Your task to perform on an android device: toggle wifi Image 0: 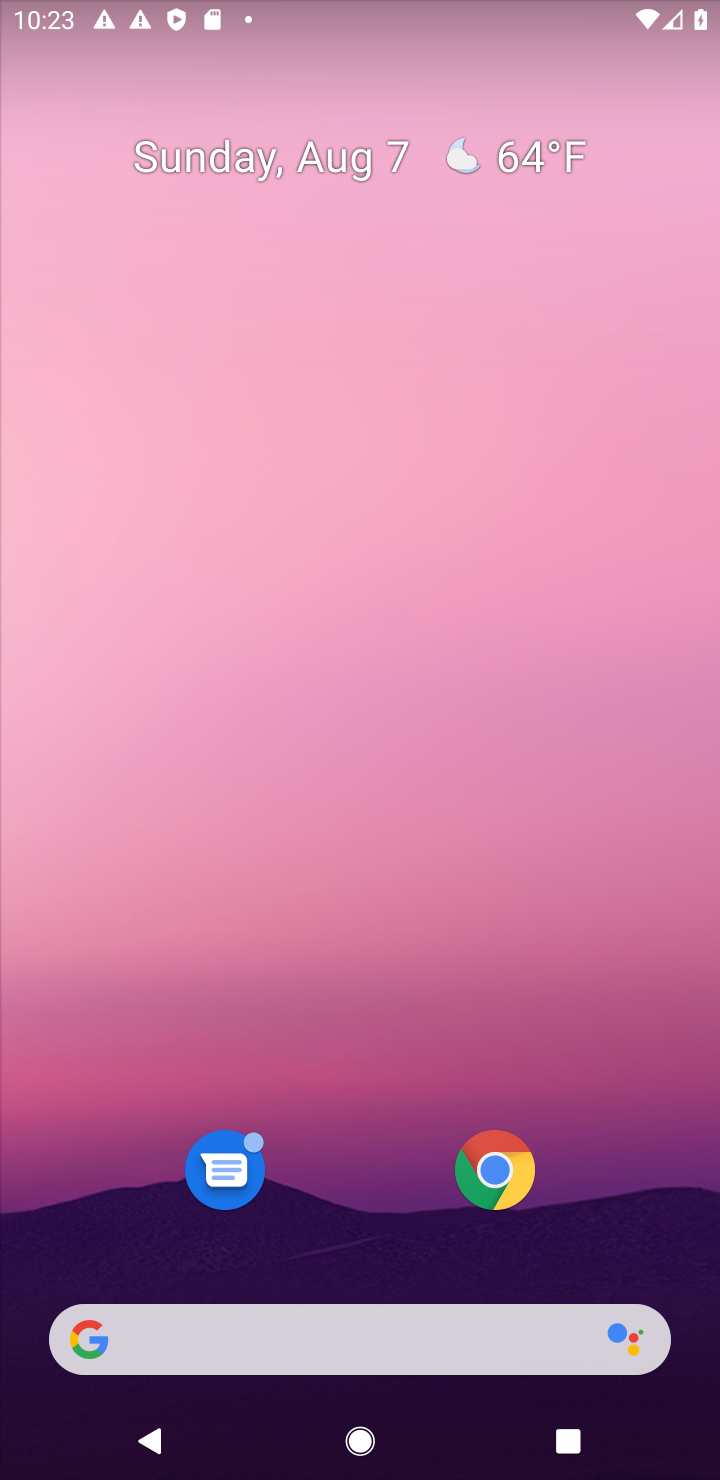
Step 0: drag from (357, 1324) to (271, 11)
Your task to perform on an android device: toggle wifi Image 1: 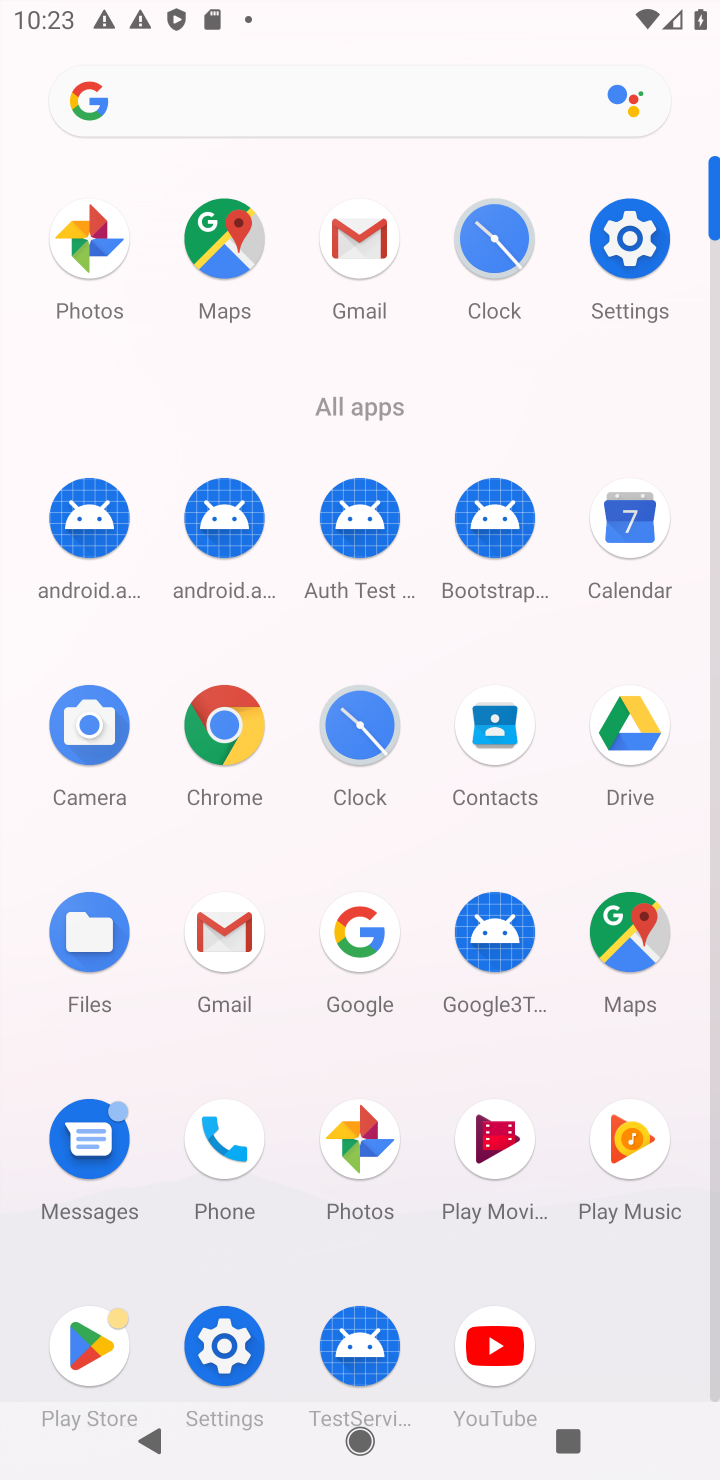
Step 1: click (632, 241)
Your task to perform on an android device: toggle wifi Image 2: 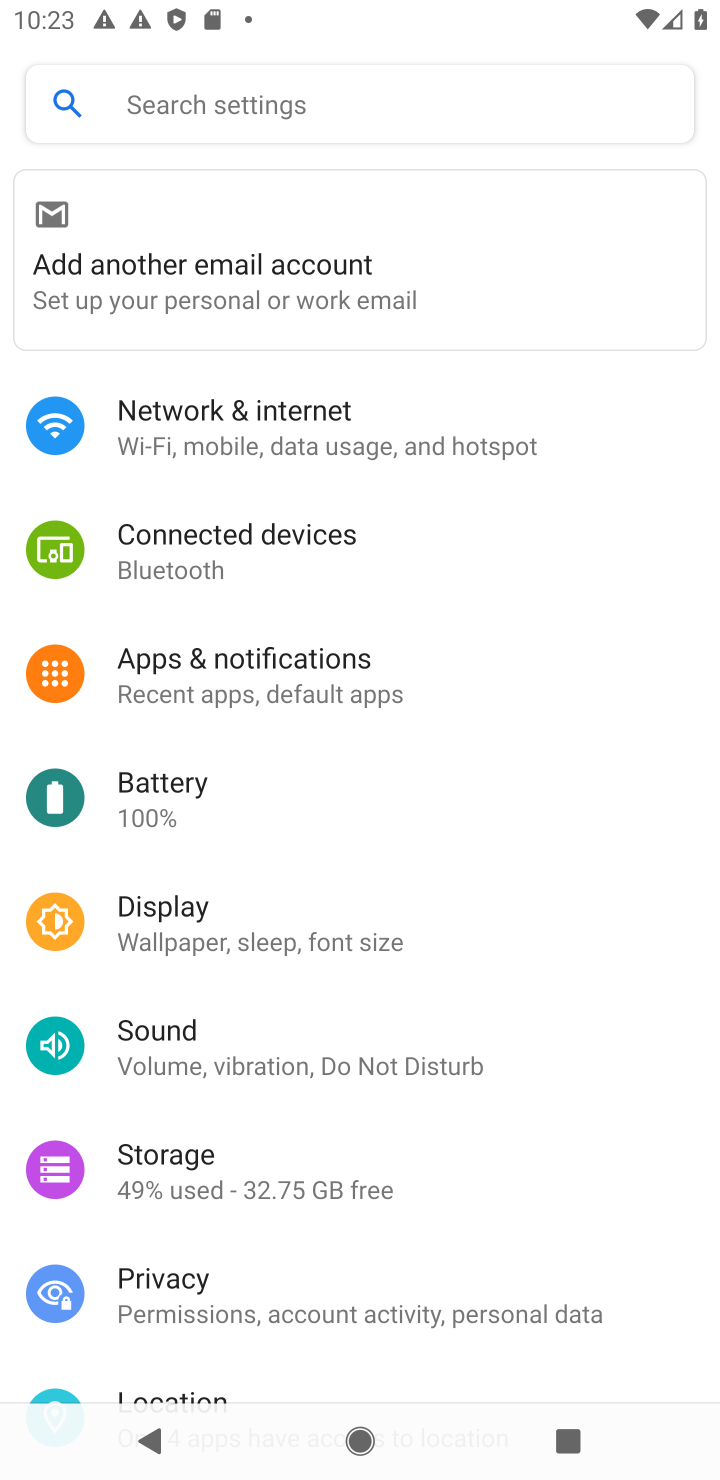
Step 2: click (226, 436)
Your task to perform on an android device: toggle wifi Image 3: 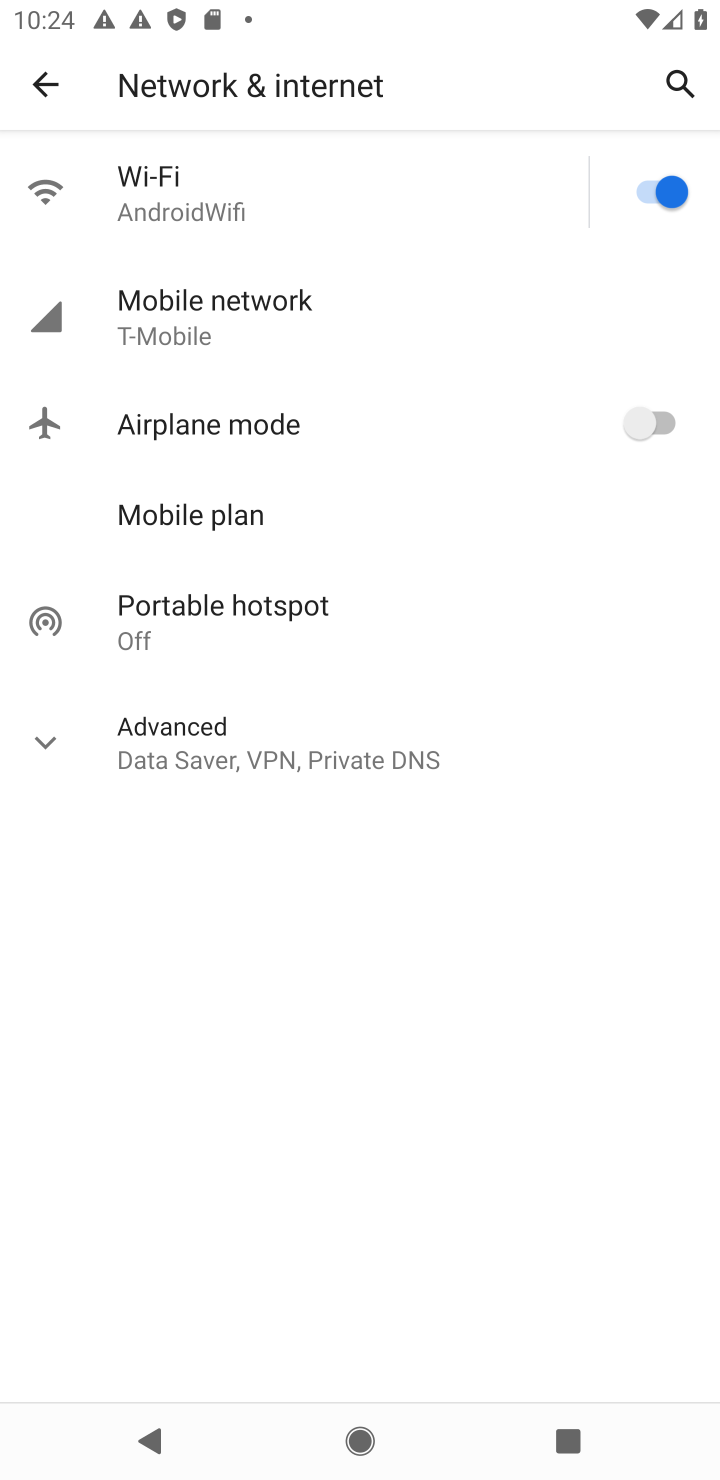
Step 3: click (664, 198)
Your task to perform on an android device: toggle wifi Image 4: 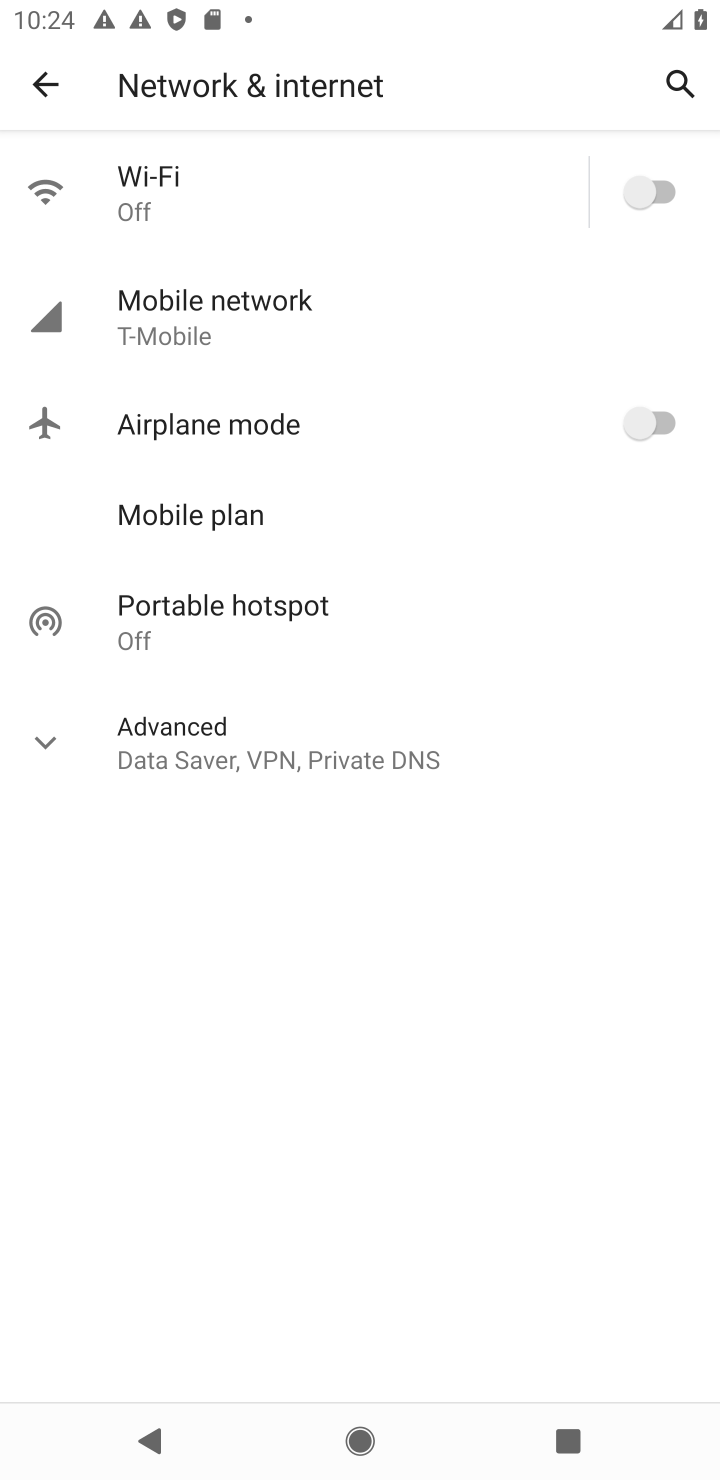
Step 4: task complete